Your task to perform on an android device: Go to accessibility settings Image 0: 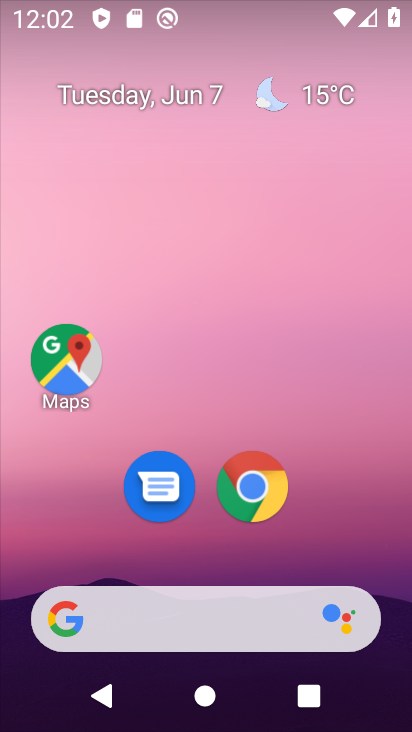
Step 0: drag from (328, 538) to (236, 35)
Your task to perform on an android device: Go to accessibility settings Image 1: 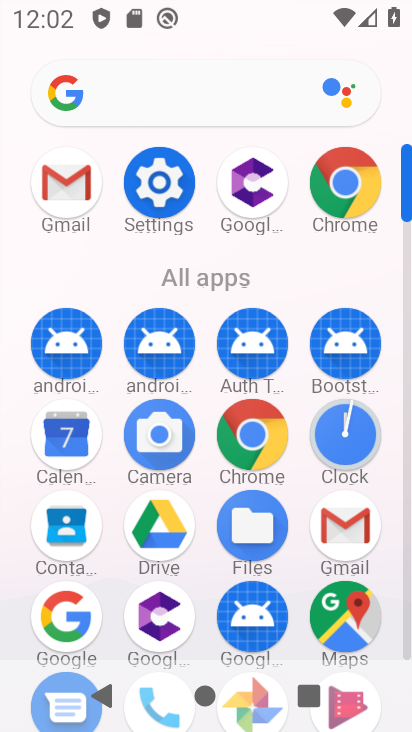
Step 1: click (160, 197)
Your task to perform on an android device: Go to accessibility settings Image 2: 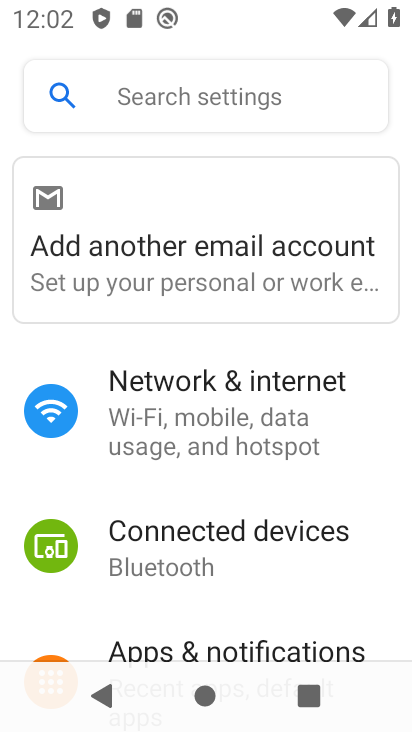
Step 2: drag from (245, 563) to (253, 148)
Your task to perform on an android device: Go to accessibility settings Image 3: 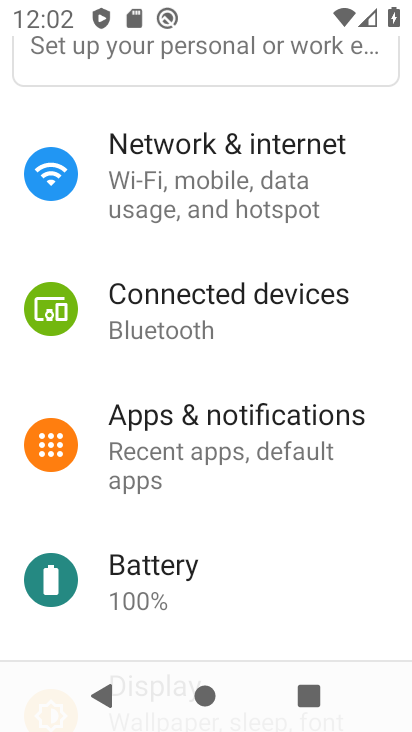
Step 3: drag from (207, 554) to (196, 165)
Your task to perform on an android device: Go to accessibility settings Image 4: 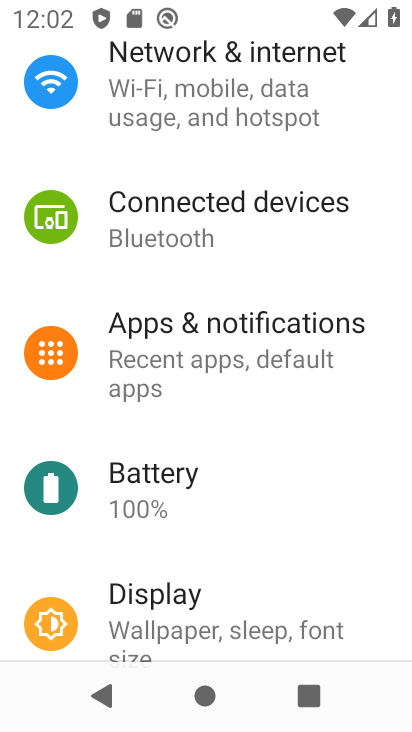
Step 4: drag from (168, 558) to (260, 169)
Your task to perform on an android device: Go to accessibility settings Image 5: 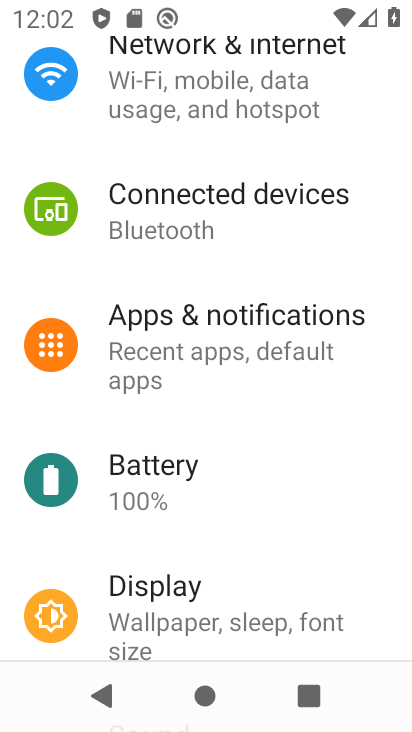
Step 5: drag from (242, 576) to (222, 97)
Your task to perform on an android device: Go to accessibility settings Image 6: 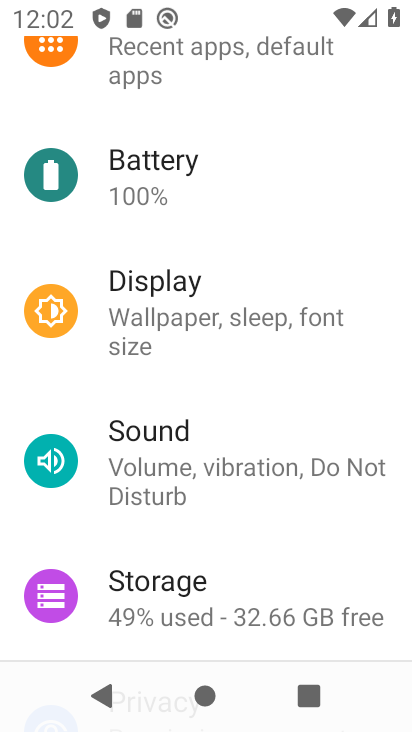
Step 6: drag from (200, 530) to (217, 126)
Your task to perform on an android device: Go to accessibility settings Image 7: 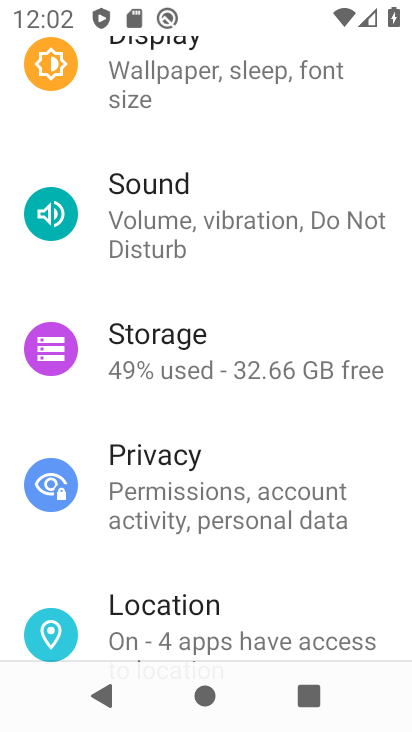
Step 7: drag from (187, 539) to (207, 99)
Your task to perform on an android device: Go to accessibility settings Image 8: 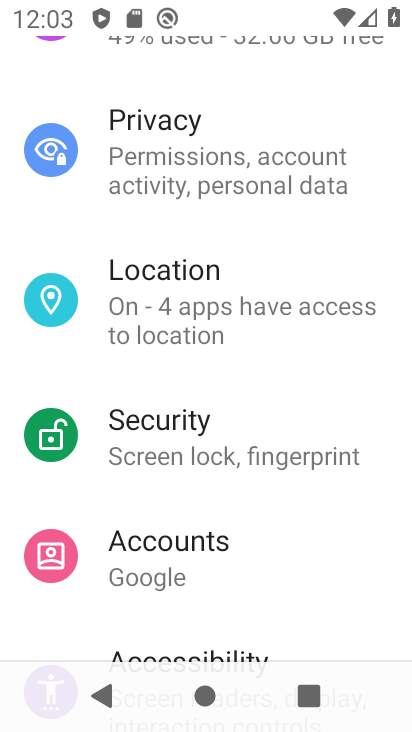
Step 8: drag from (221, 510) to (227, 73)
Your task to perform on an android device: Go to accessibility settings Image 9: 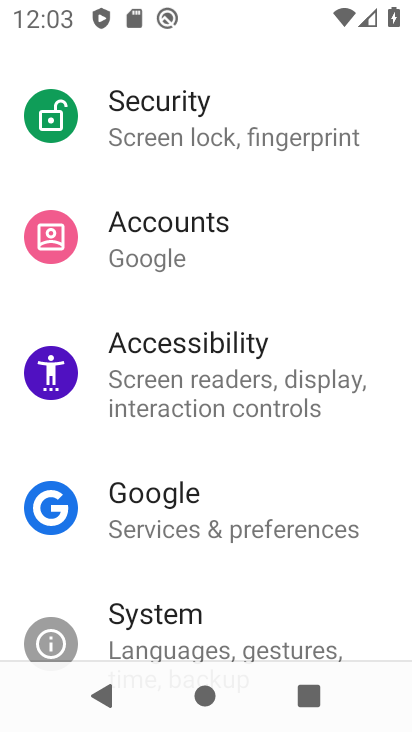
Step 9: click (188, 368)
Your task to perform on an android device: Go to accessibility settings Image 10: 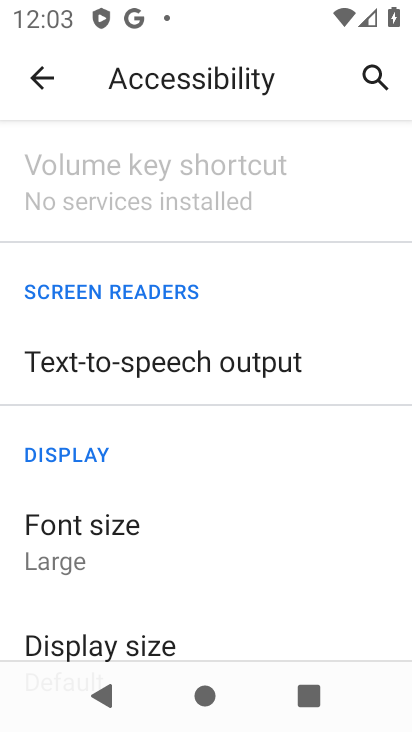
Step 10: task complete